Your task to perform on an android device: Go to wifi settings Image 0: 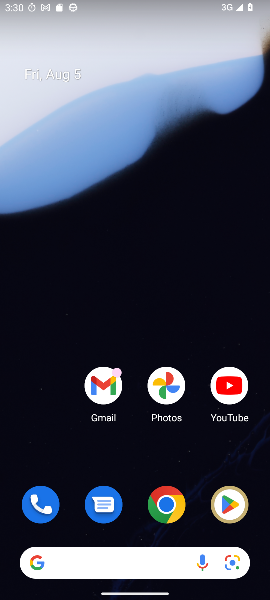
Step 0: click (5, 575)
Your task to perform on an android device: Go to wifi settings Image 1: 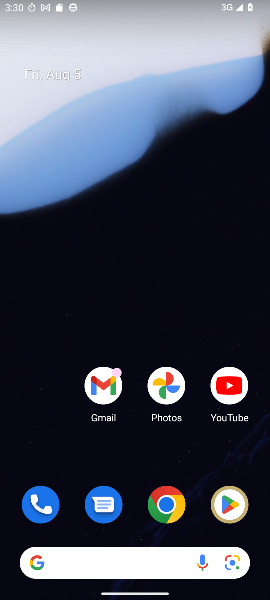
Step 1: drag from (14, 565) to (214, 190)
Your task to perform on an android device: Go to wifi settings Image 2: 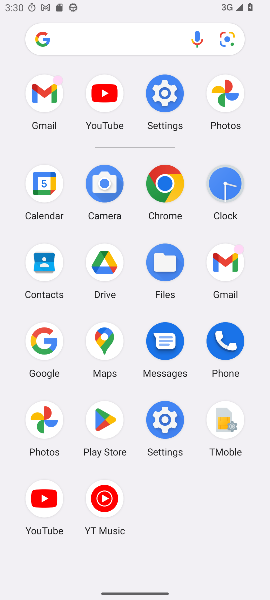
Step 2: click (145, 423)
Your task to perform on an android device: Go to wifi settings Image 3: 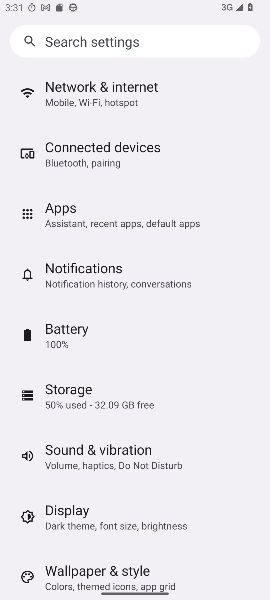
Step 3: click (131, 90)
Your task to perform on an android device: Go to wifi settings Image 4: 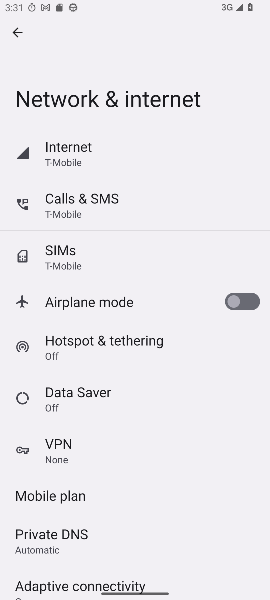
Step 4: click (100, 143)
Your task to perform on an android device: Go to wifi settings Image 5: 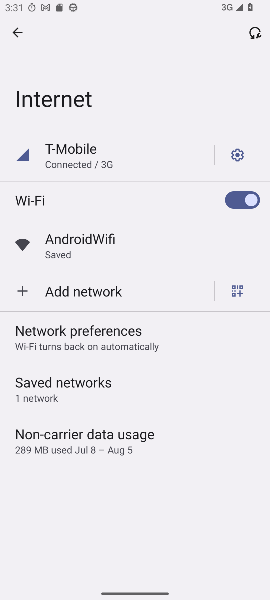
Step 5: task complete